Your task to perform on an android device: Is it going to rain today? Image 0: 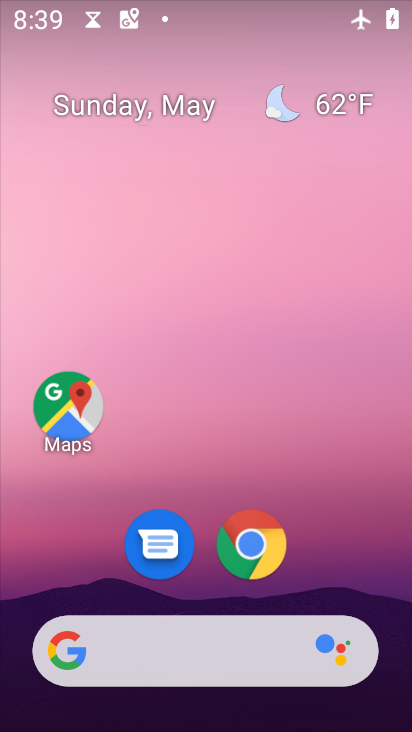
Step 0: drag from (300, 581) to (232, 29)
Your task to perform on an android device: Is it going to rain today? Image 1: 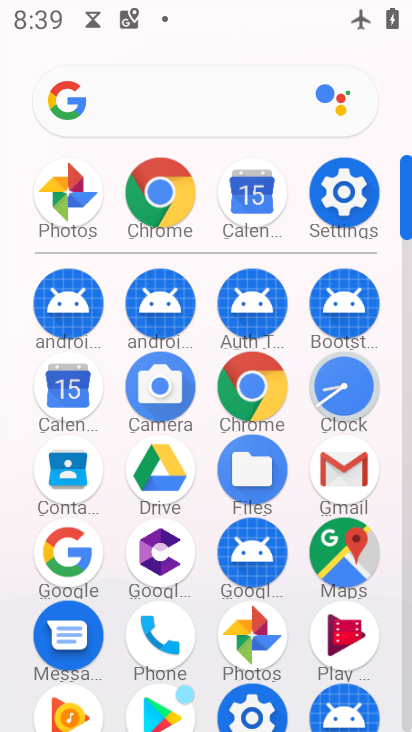
Step 1: click (342, 184)
Your task to perform on an android device: Is it going to rain today? Image 2: 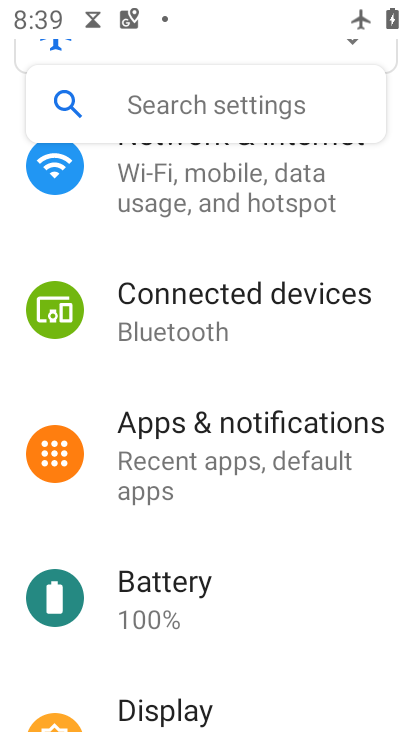
Step 2: click (237, 208)
Your task to perform on an android device: Is it going to rain today? Image 3: 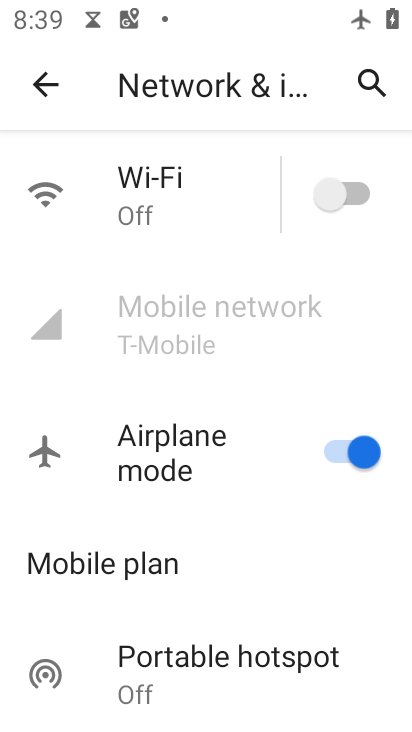
Step 3: click (344, 453)
Your task to perform on an android device: Is it going to rain today? Image 4: 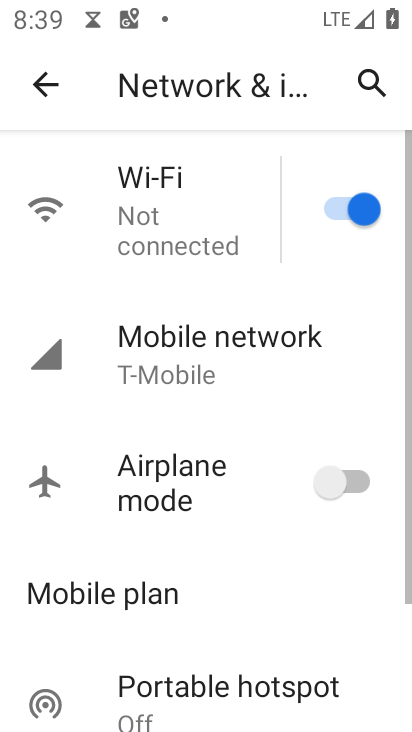
Step 4: press back button
Your task to perform on an android device: Is it going to rain today? Image 5: 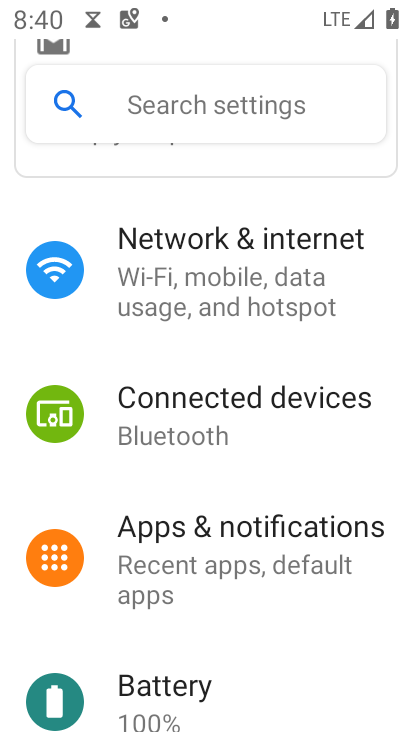
Step 5: press back button
Your task to perform on an android device: Is it going to rain today? Image 6: 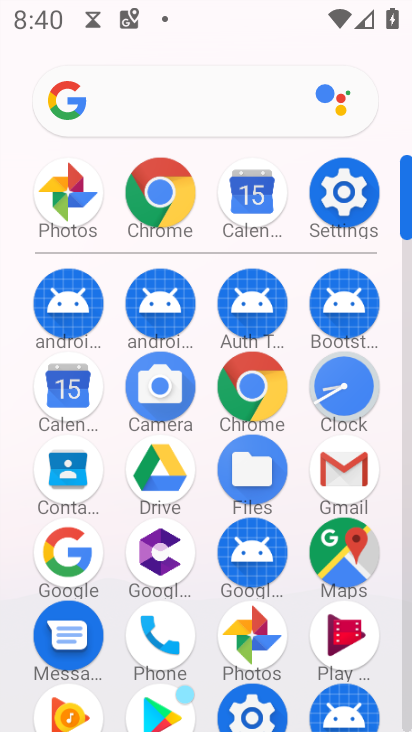
Step 6: click (56, 549)
Your task to perform on an android device: Is it going to rain today? Image 7: 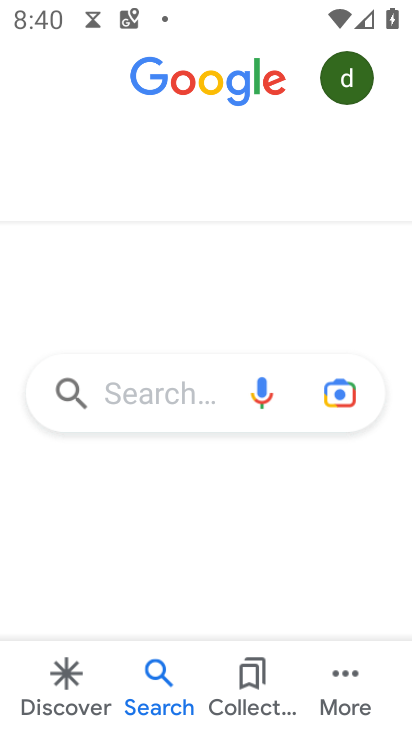
Step 7: click (182, 391)
Your task to perform on an android device: Is it going to rain today? Image 8: 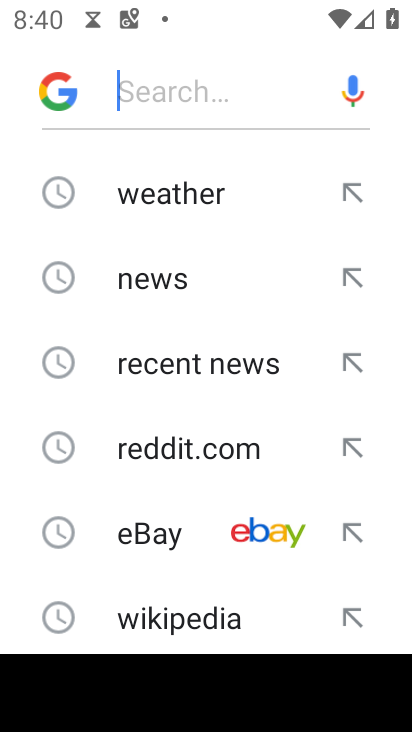
Step 8: click (179, 195)
Your task to perform on an android device: Is it going to rain today? Image 9: 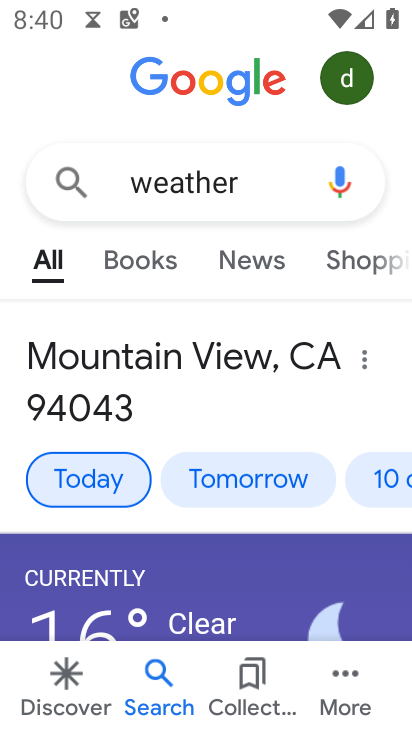
Step 9: task complete